Your task to perform on an android device: Open sound settings Image 0: 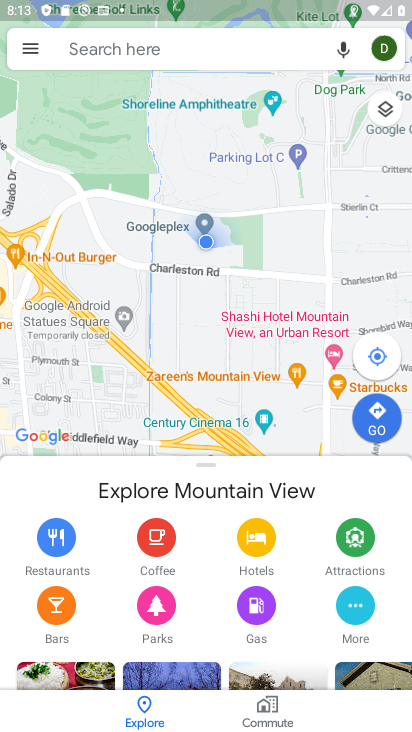
Step 0: press home button
Your task to perform on an android device: Open sound settings Image 1: 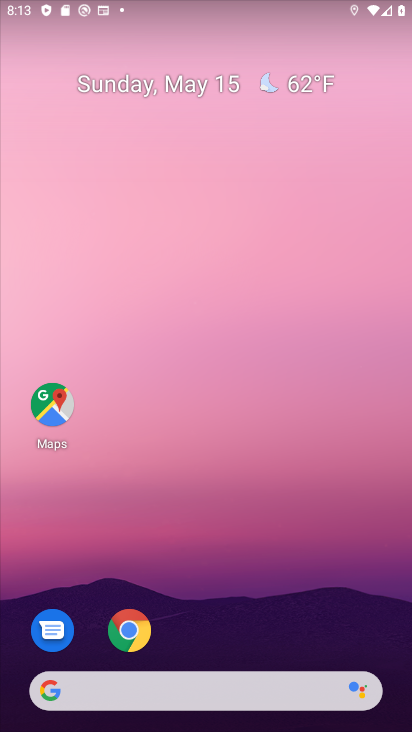
Step 1: drag from (180, 631) to (260, 94)
Your task to perform on an android device: Open sound settings Image 2: 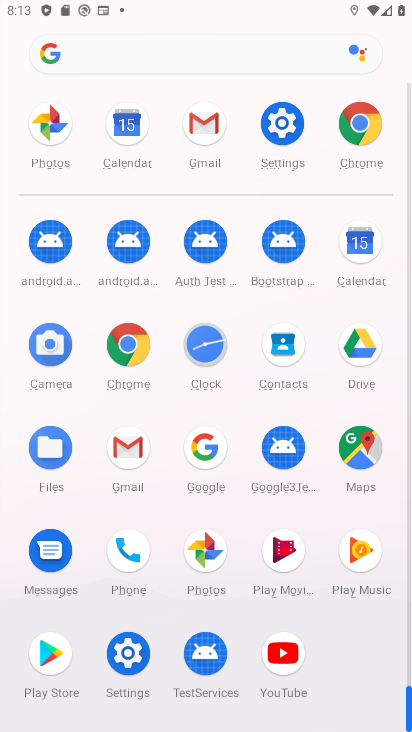
Step 2: click (138, 656)
Your task to perform on an android device: Open sound settings Image 3: 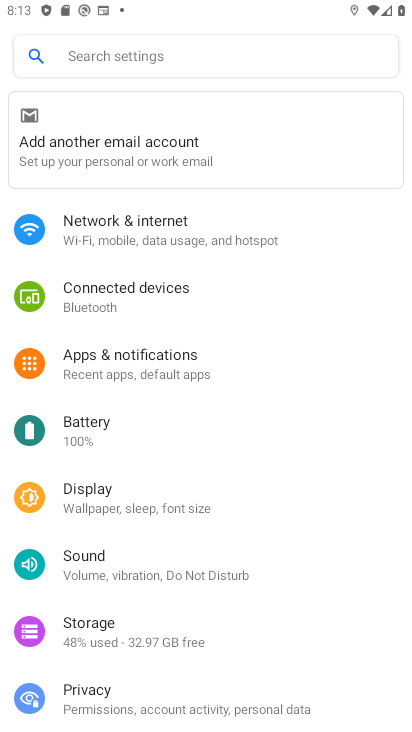
Step 3: click (116, 566)
Your task to perform on an android device: Open sound settings Image 4: 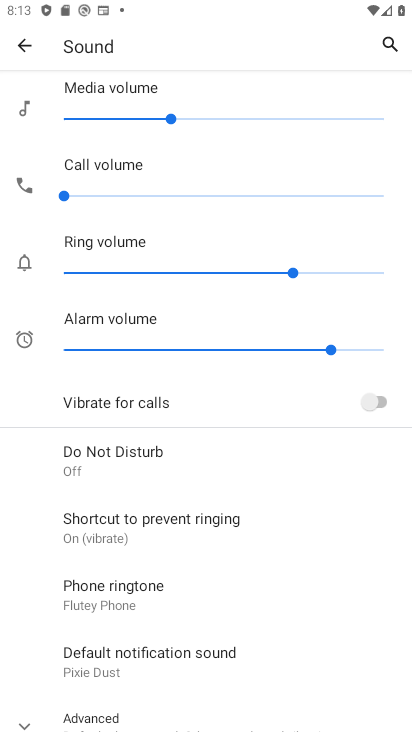
Step 4: task complete